Your task to perform on an android device: turn off notifications settings in the gmail app Image 0: 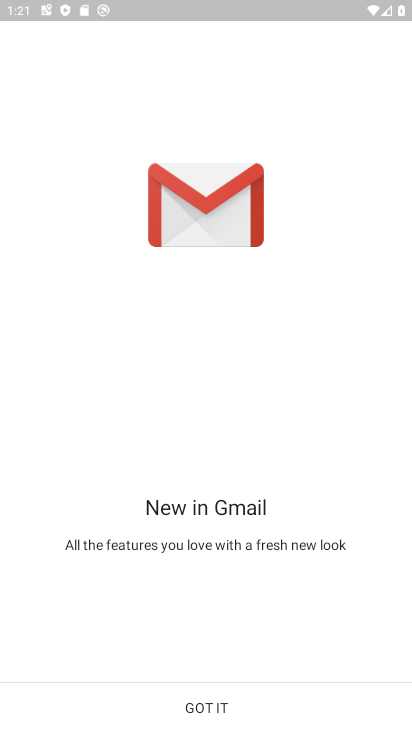
Step 0: press home button
Your task to perform on an android device: turn off notifications settings in the gmail app Image 1: 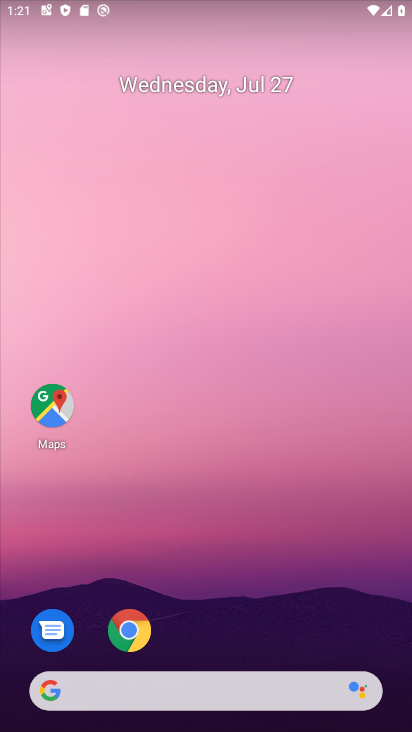
Step 1: drag from (176, 674) to (124, 56)
Your task to perform on an android device: turn off notifications settings in the gmail app Image 2: 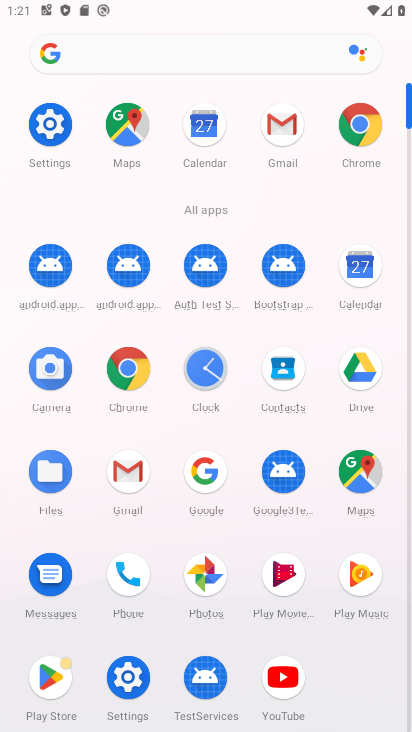
Step 2: click (125, 476)
Your task to perform on an android device: turn off notifications settings in the gmail app Image 3: 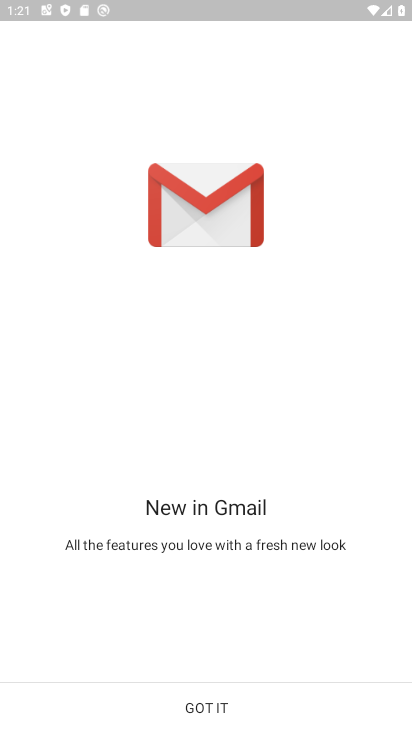
Step 3: click (207, 719)
Your task to perform on an android device: turn off notifications settings in the gmail app Image 4: 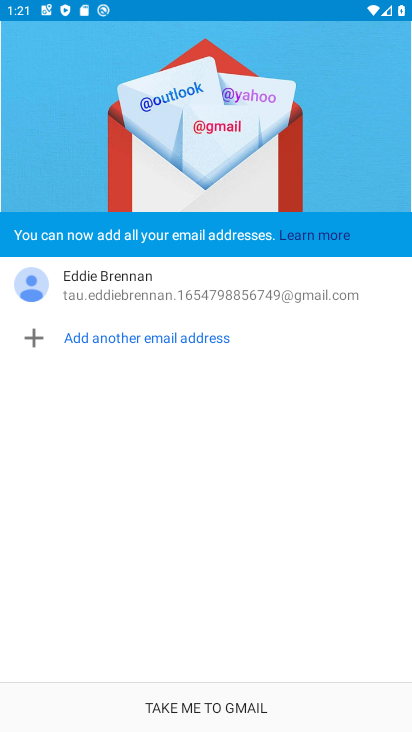
Step 4: click (219, 700)
Your task to perform on an android device: turn off notifications settings in the gmail app Image 5: 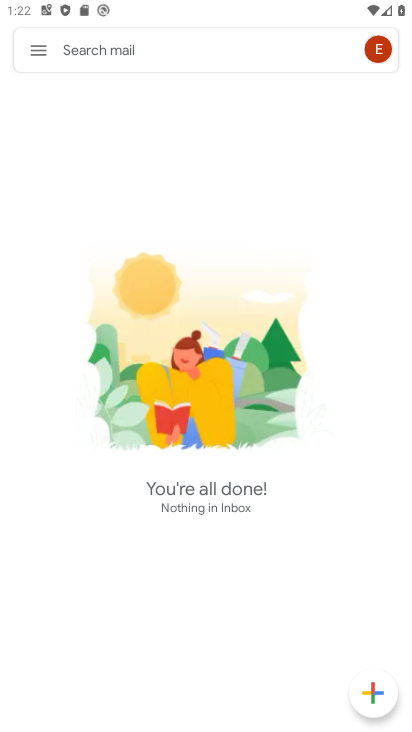
Step 5: click (48, 48)
Your task to perform on an android device: turn off notifications settings in the gmail app Image 6: 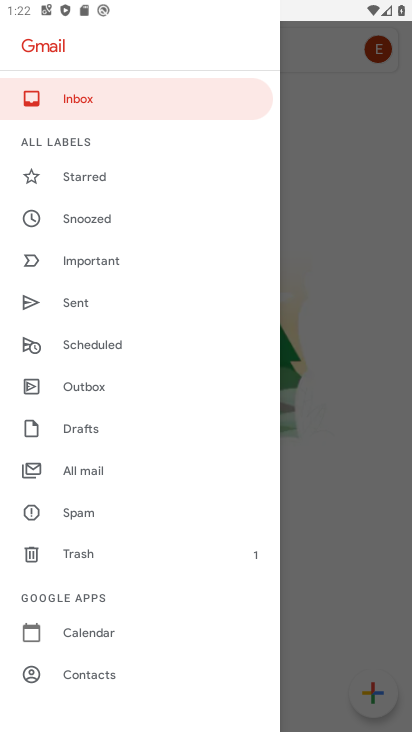
Step 6: drag from (158, 560) to (135, 63)
Your task to perform on an android device: turn off notifications settings in the gmail app Image 7: 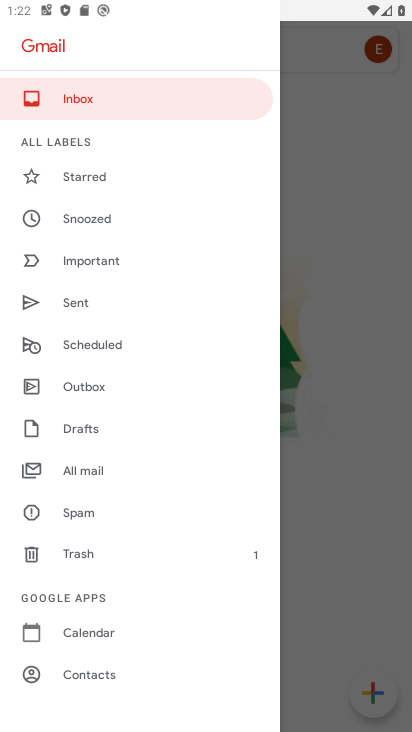
Step 7: drag from (106, 663) to (80, 248)
Your task to perform on an android device: turn off notifications settings in the gmail app Image 8: 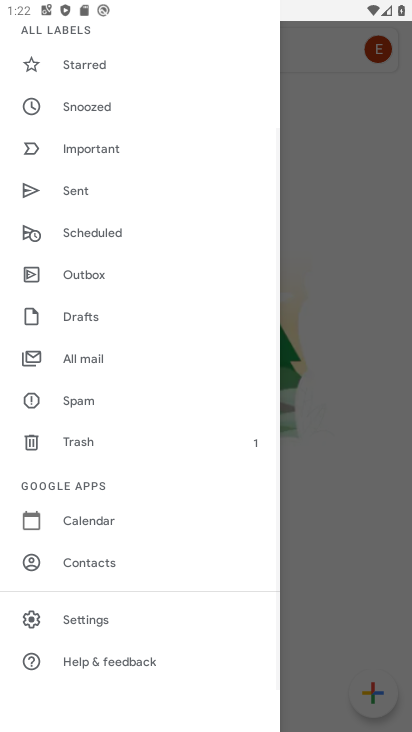
Step 8: click (85, 620)
Your task to perform on an android device: turn off notifications settings in the gmail app Image 9: 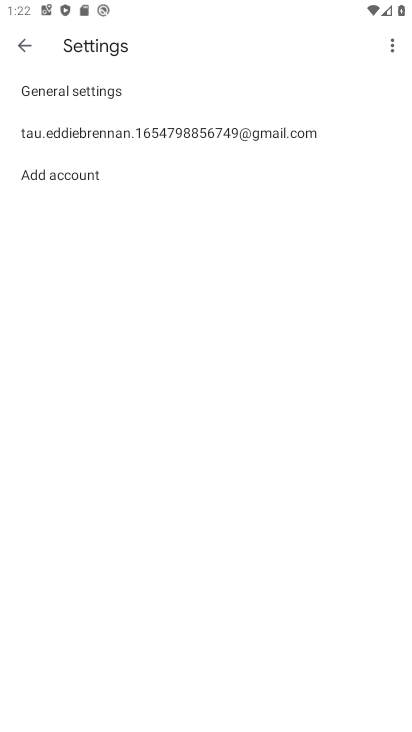
Step 9: click (122, 141)
Your task to perform on an android device: turn off notifications settings in the gmail app Image 10: 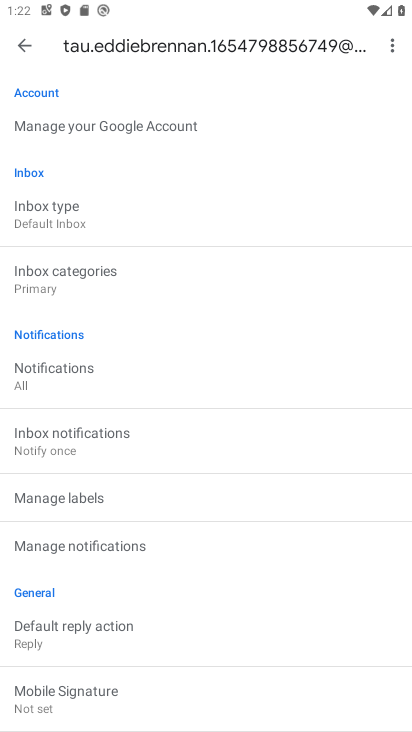
Step 10: click (92, 551)
Your task to perform on an android device: turn off notifications settings in the gmail app Image 11: 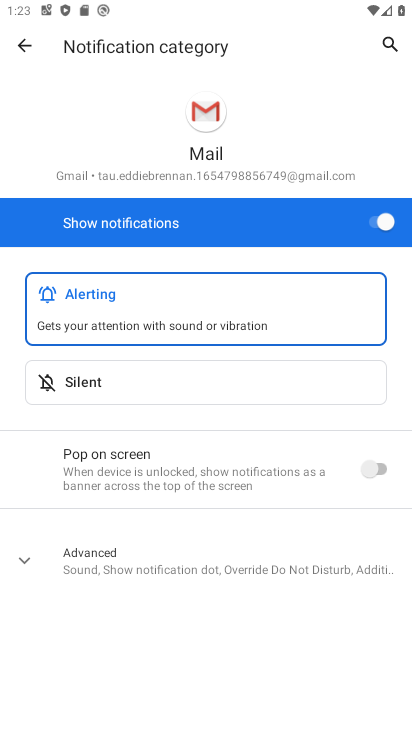
Step 11: click (386, 225)
Your task to perform on an android device: turn off notifications settings in the gmail app Image 12: 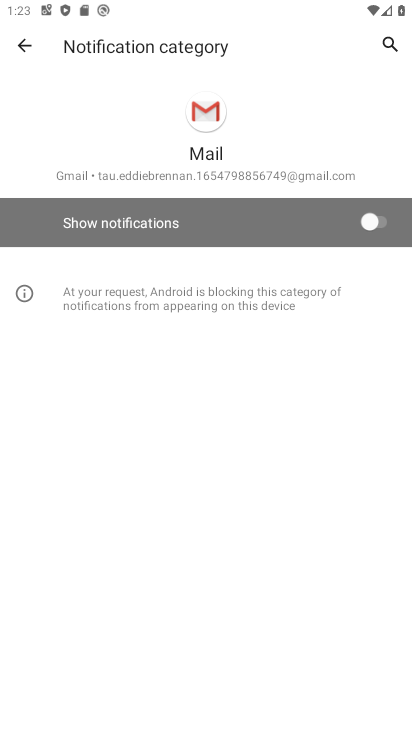
Step 12: task complete